Your task to perform on an android device: check storage Image 0: 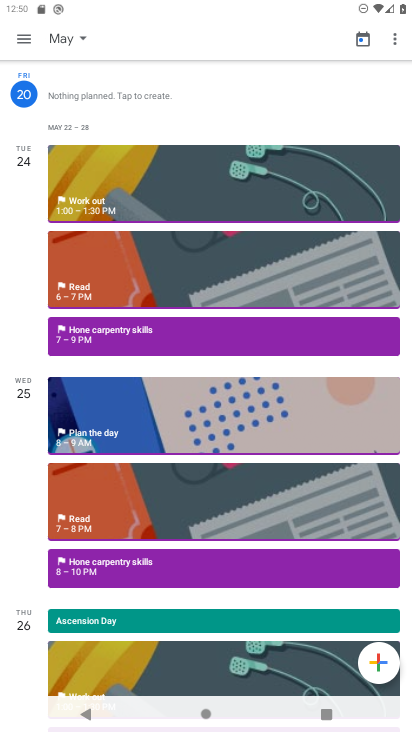
Step 0: press home button
Your task to perform on an android device: check storage Image 1: 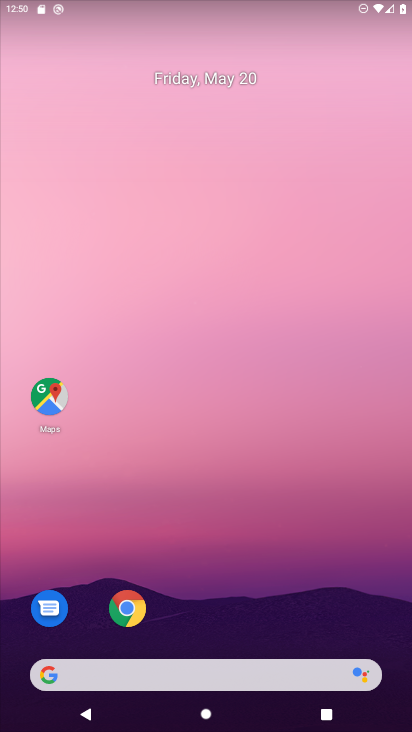
Step 1: drag from (359, 571) to (311, 169)
Your task to perform on an android device: check storage Image 2: 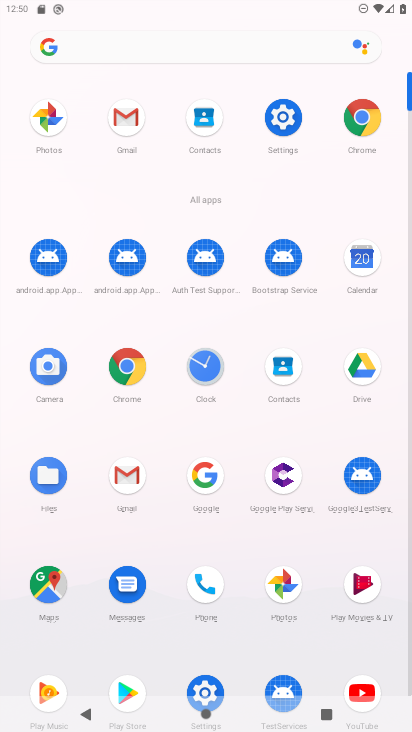
Step 2: click (211, 677)
Your task to perform on an android device: check storage Image 3: 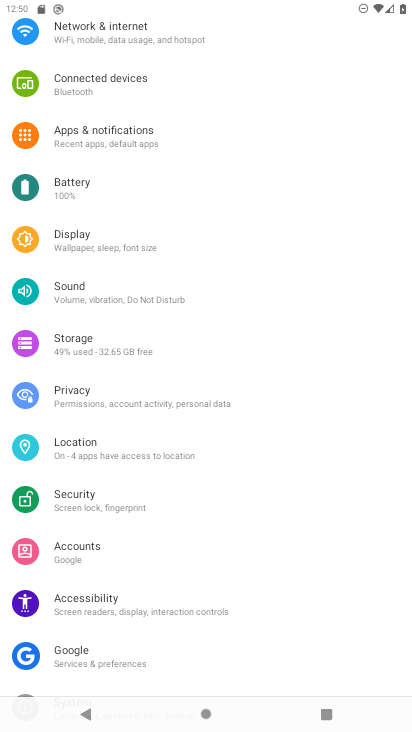
Step 3: click (113, 343)
Your task to perform on an android device: check storage Image 4: 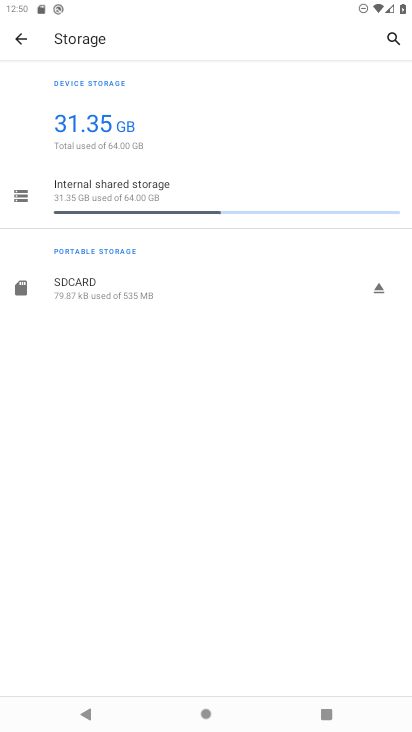
Step 4: task complete